Your task to perform on an android device: check data usage Image 0: 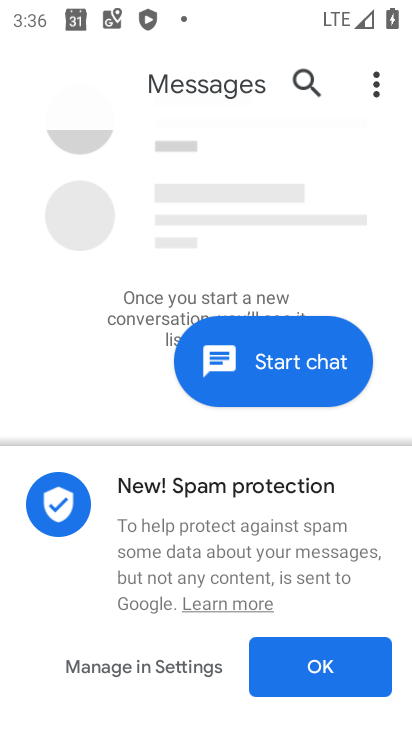
Step 0: press home button
Your task to perform on an android device: check data usage Image 1: 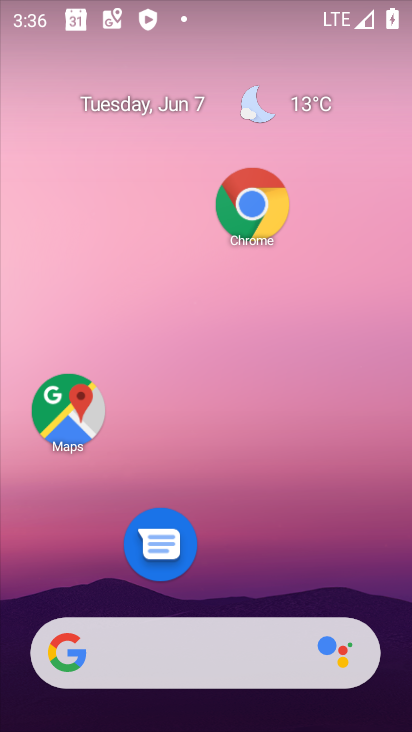
Step 1: click (222, 590)
Your task to perform on an android device: check data usage Image 2: 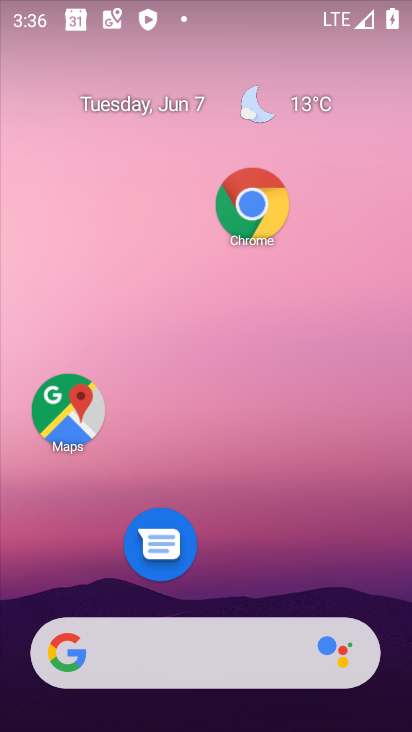
Step 2: drag from (220, 204) to (234, 16)
Your task to perform on an android device: check data usage Image 3: 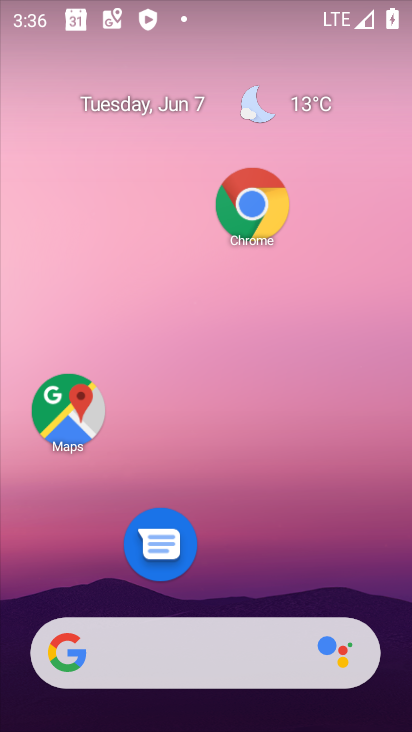
Step 3: drag from (213, 573) to (219, 42)
Your task to perform on an android device: check data usage Image 4: 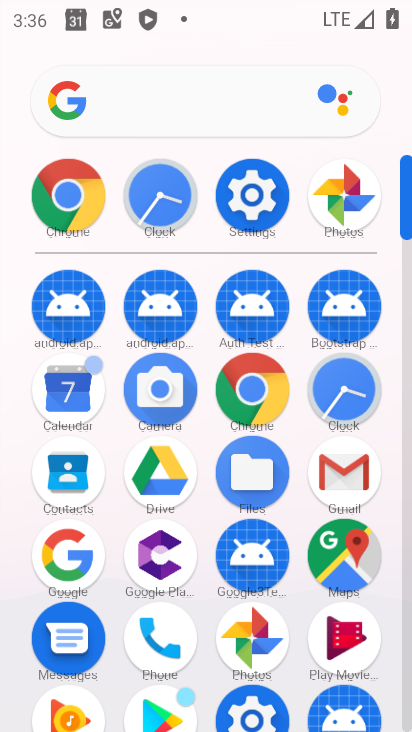
Step 4: click (251, 188)
Your task to perform on an android device: check data usage Image 5: 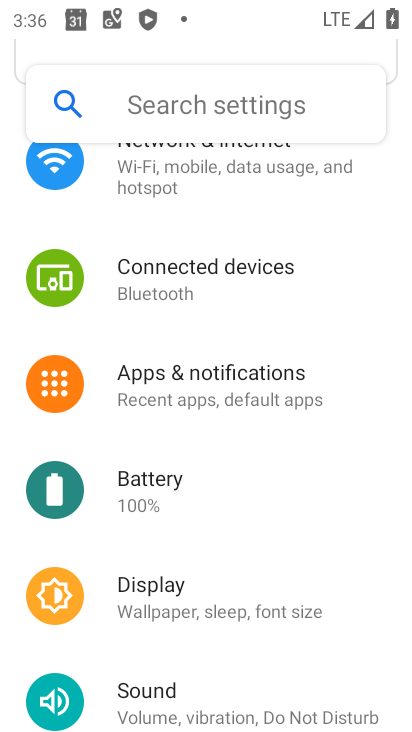
Step 5: drag from (201, 217) to (198, 515)
Your task to perform on an android device: check data usage Image 6: 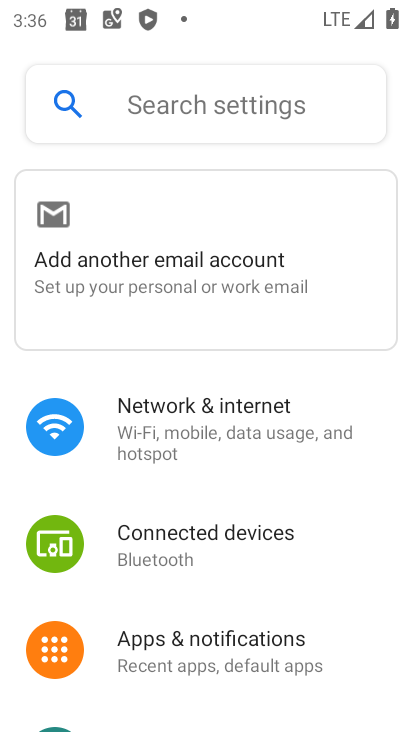
Step 6: click (217, 388)
Your task to perform on an android device: check data usage Image 7: 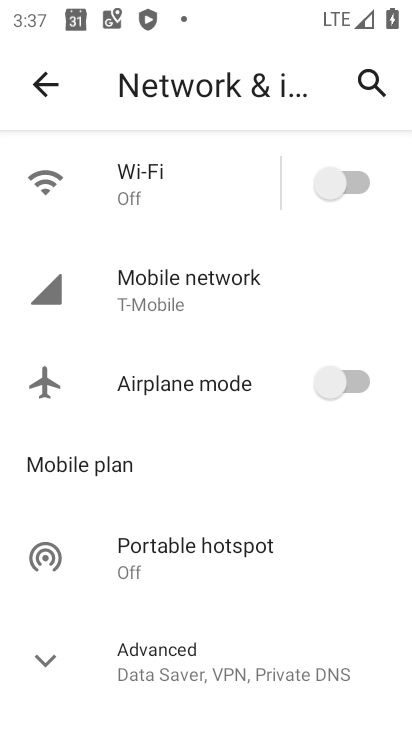
Step 7: click (206, 296)
Your task to perform on an android device: check data usage Image 8: 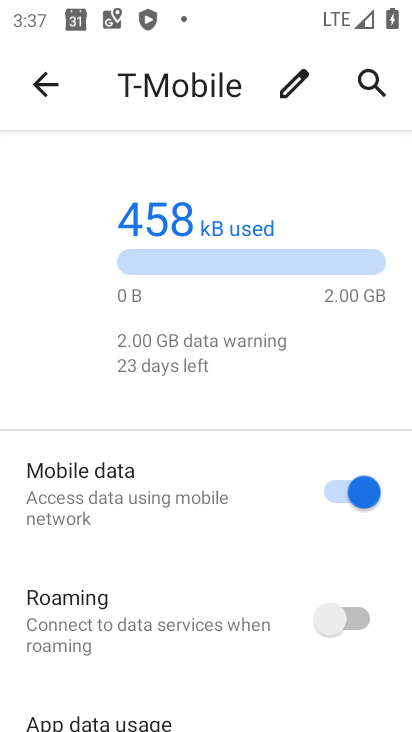
Step 8: click (192, 711)
Your task to perform on an android device: check data usage Image 9: 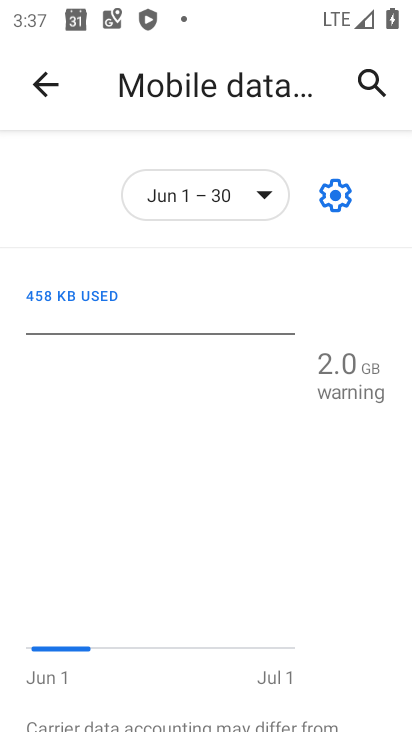
Step 9: task complete